Your task to perform on an android device: turn on wifi Image 0: 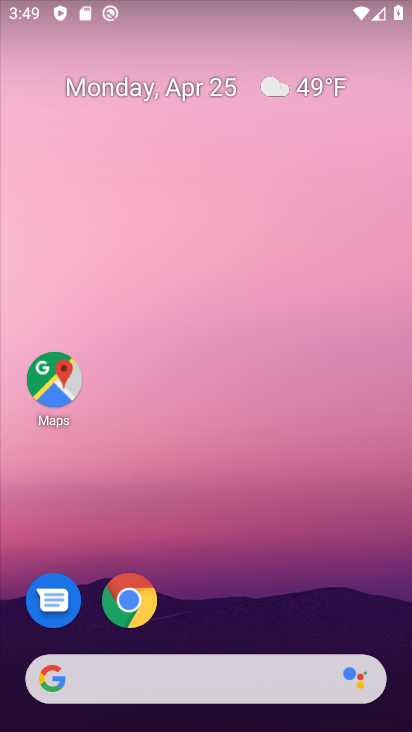
Step 0: drag from (245, 586) to (294, 35)
Your task to perform on an android device: turn on wifi Image 1: 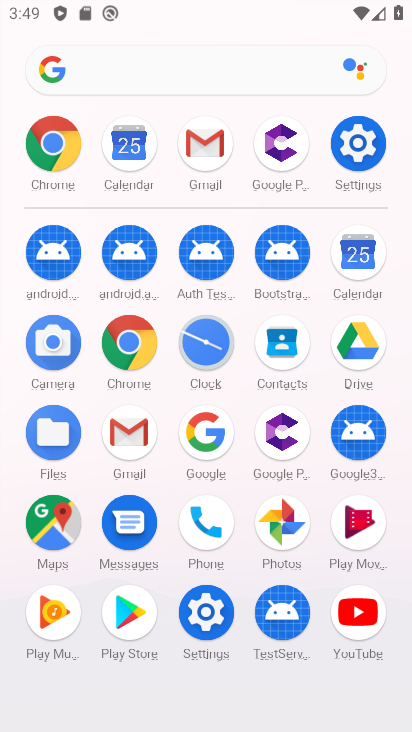
Step 1: click (349, 139)
Your task to perform on an android device: turn on wifi Image 2: 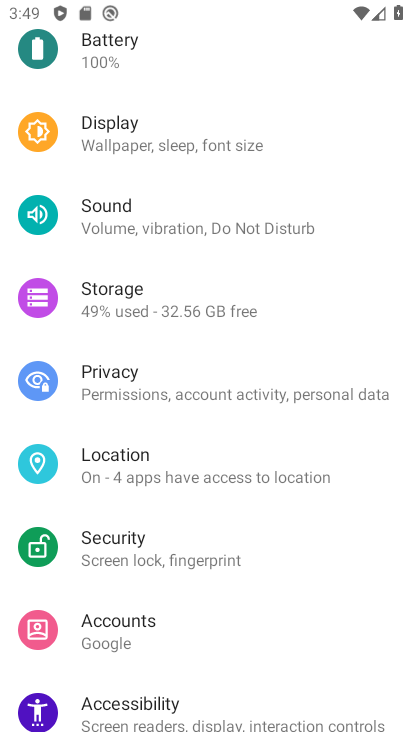
Step 2: drag from (290, 186) to (262, 652)
Your task to perform on an android device: turn on wifi Image 3: 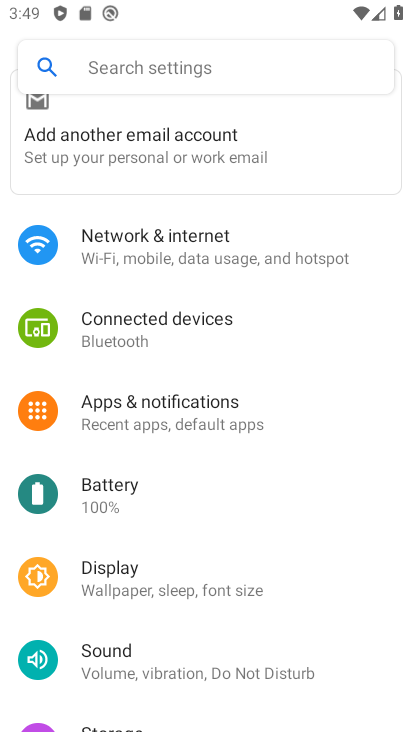
Step 3: click (225, 236)
Your task to perform on an android device: turn on wifi Image 4: 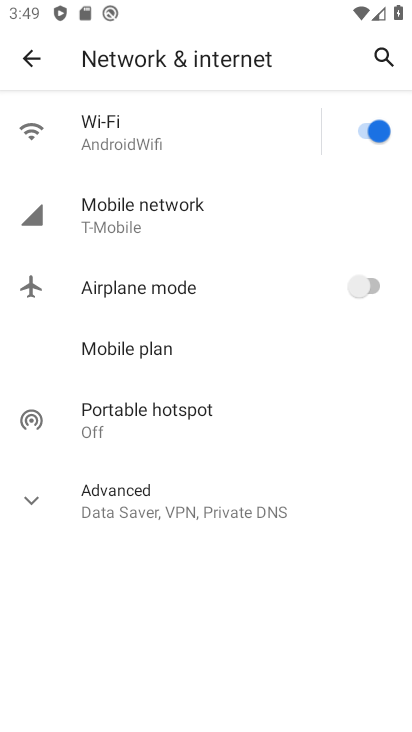
Step 4: task complete